Your task to perform on an android device: View the shopping cart on target. Search for "macbook pro 13 inch" on target, select the first entry, add it to the cart, then select checkout. Image 0: 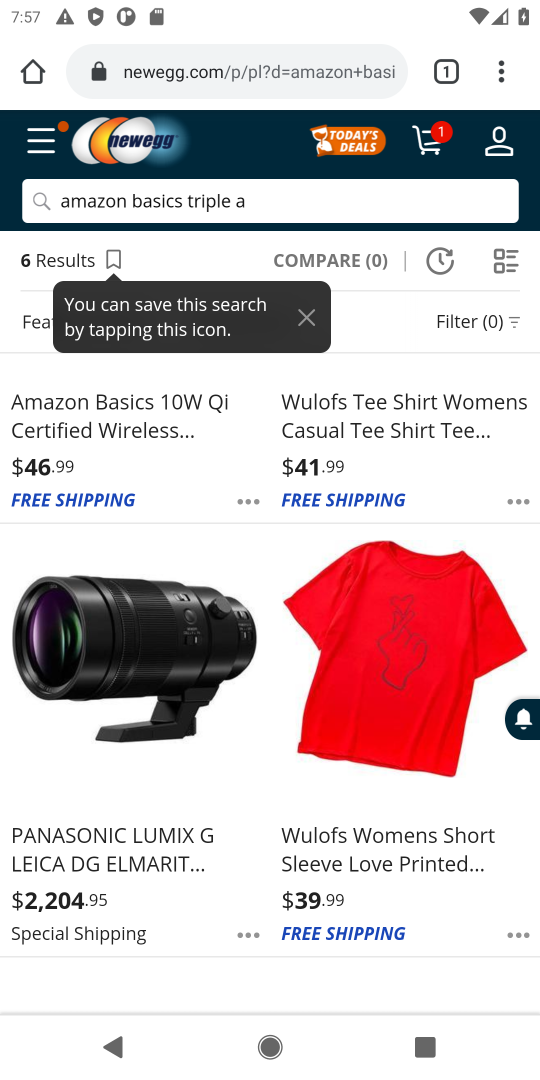
Step 0: press home button
Your task to perform on an android device: View the shopping cart on target. Search for "macbook pro 13 inch" on target, select the first entry, add it to the cart, then select checkout. Image 1: 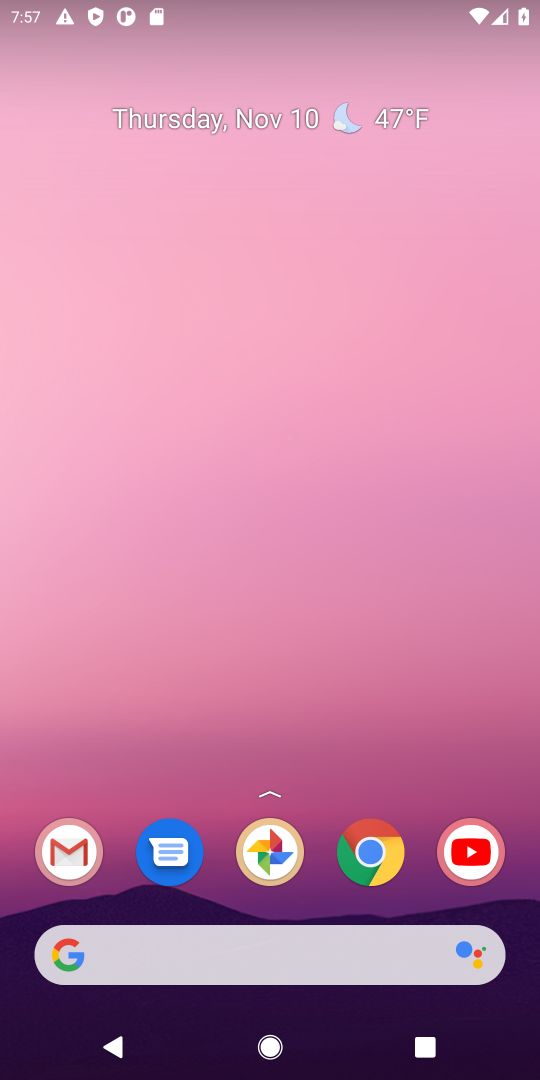
Step 1: click (375, 851)
Your task to perform on an android device: View the shopping cart on target. Search for "macbook pro 13 inch" on target, select the first entry, add it to the cart, then select checkout. Image 2: 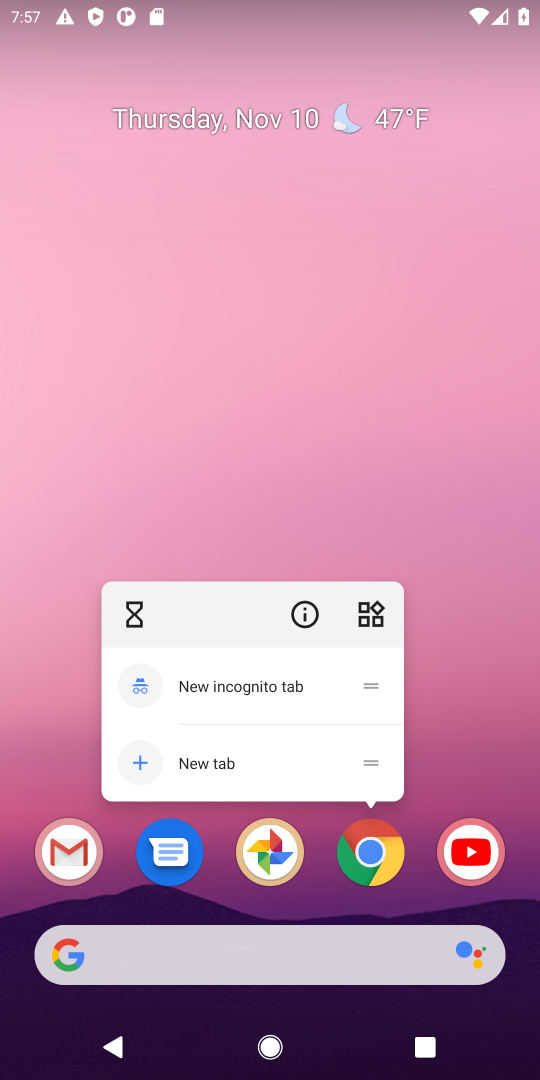
Step 2: click (375, 854)
Your task to perform on an android device: View the shopping cart on target. Search for "macbook pro 13 inch" on target, select the first entry, add it to the cart, then select checkout. Image 3: 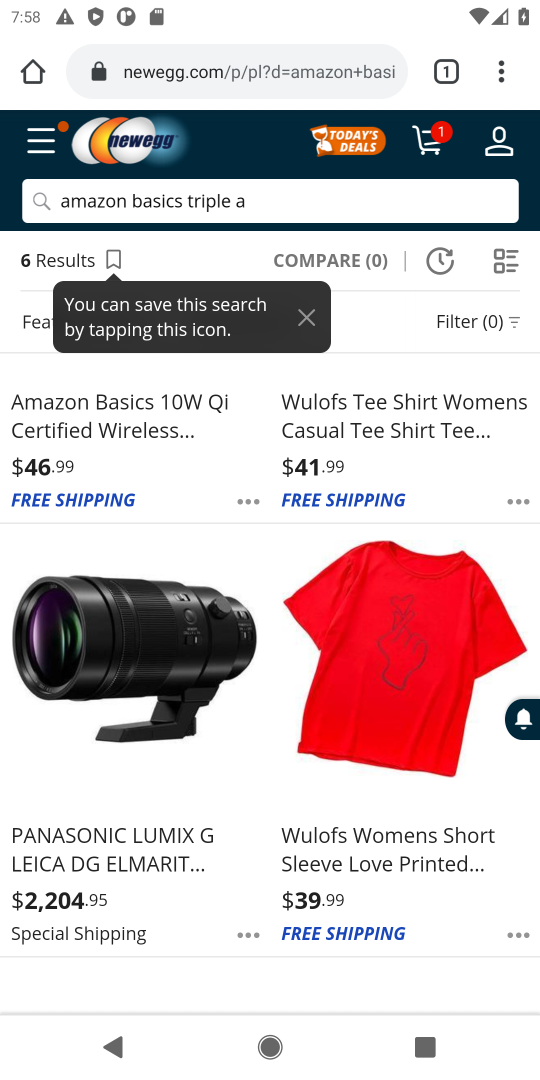
Step 3: click (299, 58)
Your task to perform on an android device: View the shopping cart on target. Search for "macbook pro 13 inch" on target, select the first entry, add it to the cart, then select checkout. Image 4: 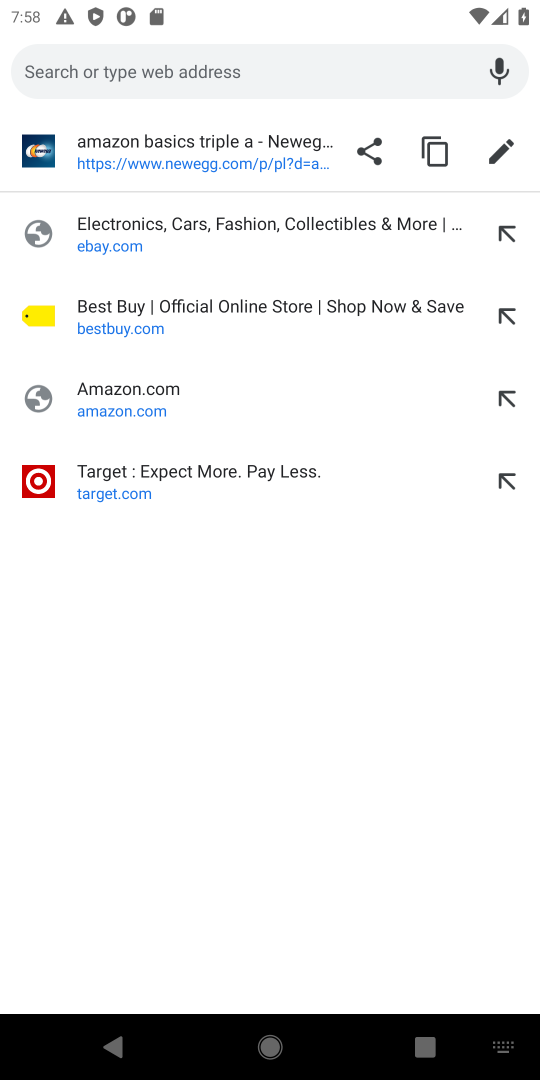
Step 4: click (89, 476)
Your task to perform on an android device: View the shopping cart on target. Search for "macbook pro 13 inch" on target, select the first entry, add it to the cart, then select checkout. Image 5: 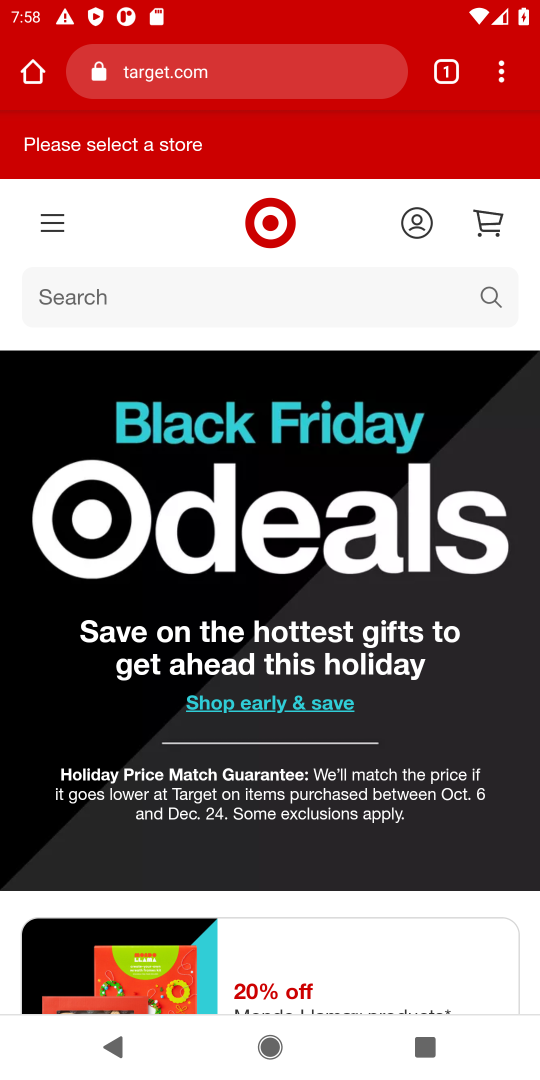
Step 5: click (109, 299)
Your task to perform on an android device: View the shopping cart on target. Search for "macbook pro 13 inch" on target, select the first entry, add it to the cart, then select checkout. Image 6: 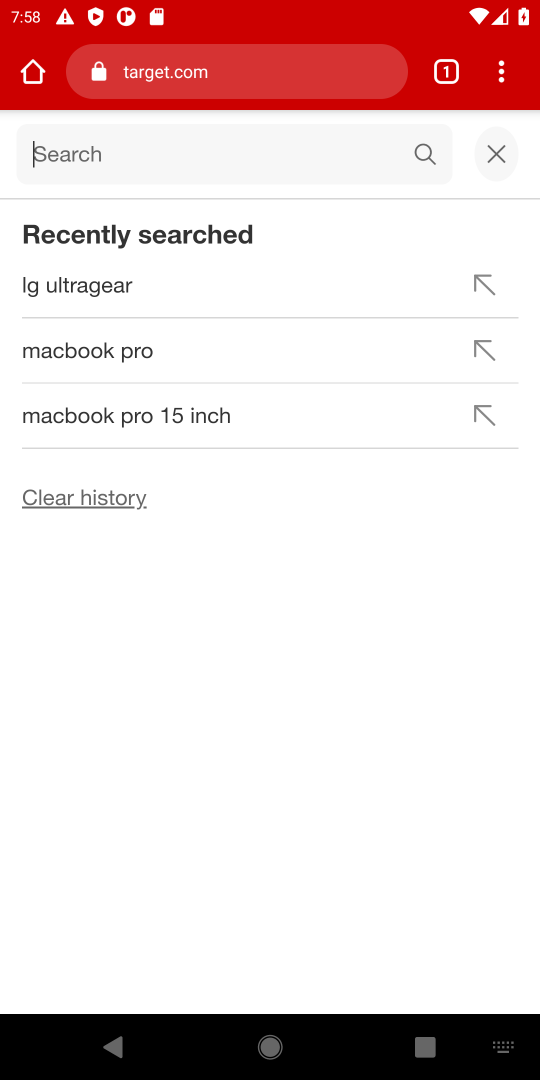
Step 6: type "macbook pro 13 inch"
Your task to perform on an android device: View the shopping cart on target. Search for "macbook pro 13 inch" on target, select the first entry, add it to the cart, then select checkout. Image 7: 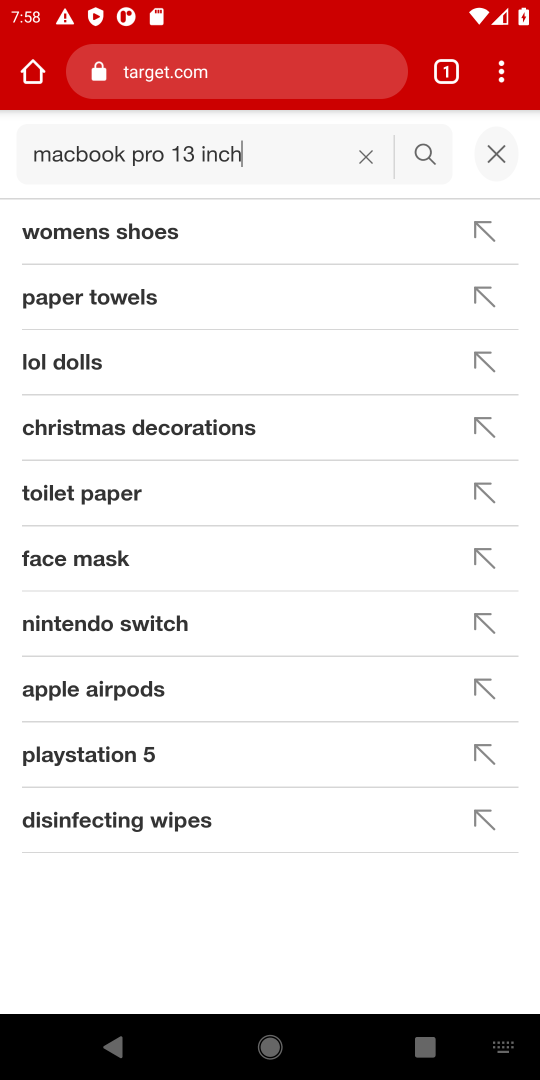
Step 7: press enter
Your task to perform on an android device: View the shopping cart on target. Search for "macbook pro 13 inch" on target, select the first entry, add it to the cart, then select checkout. Image 8: 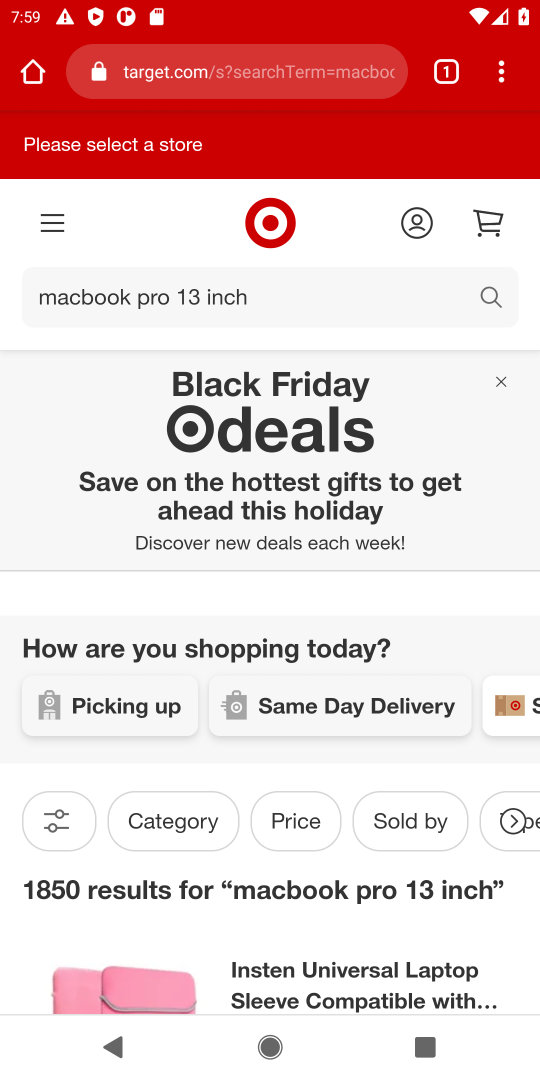
Step 8: task complete